Your task to perform on an android device: delete location history Image 0: 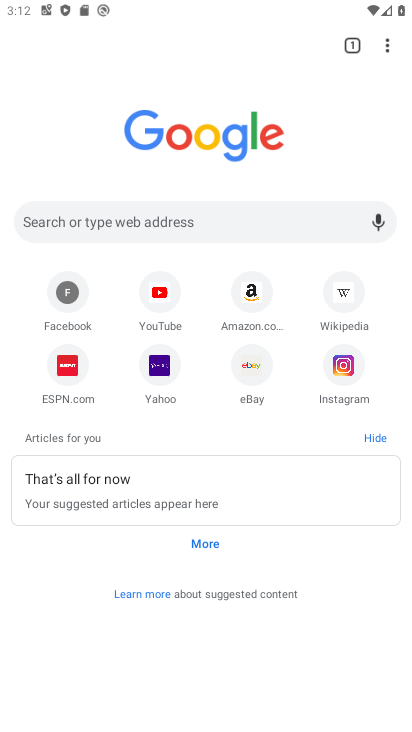
Step 0: press home button
Your task to perform on an android device: delete location history Image 1: 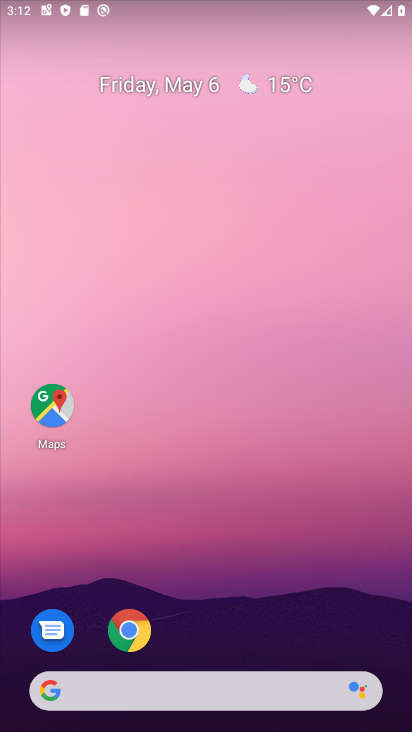
Step 1: click (38, 404)
Your task to perform on an android device: delete location history Image 2: 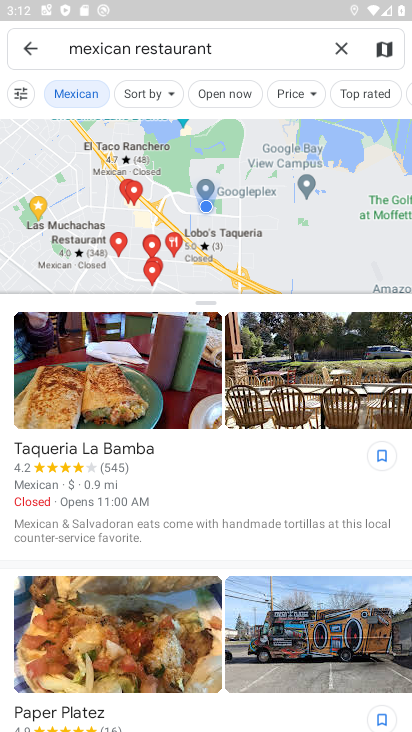
Step 2: click (40, 44)
Your task to perform on an android device: delete location history Image 3: 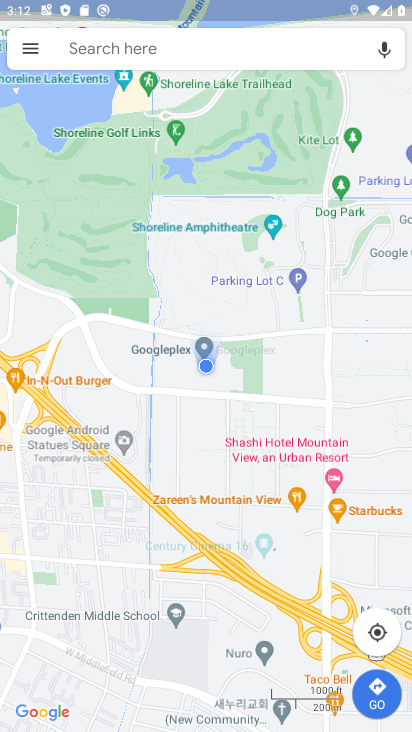
Step 3: click (40, 44)
Your task to perform on an android device: delete location history Image 4: 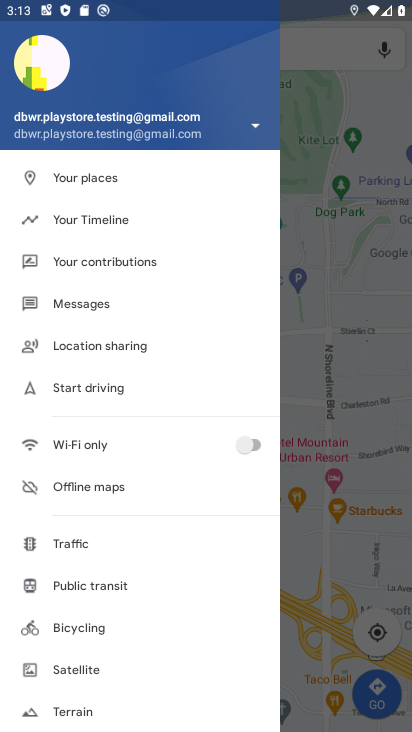
Step 4: click (143, 236)
Your task to perform on an android device: delete location history Image 5: 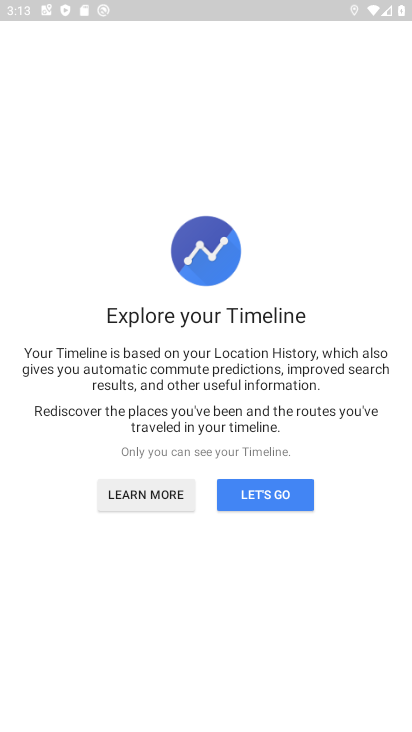
Step 5: click (276, 488)
Your task to perform on an android device: delete location history Image 6: 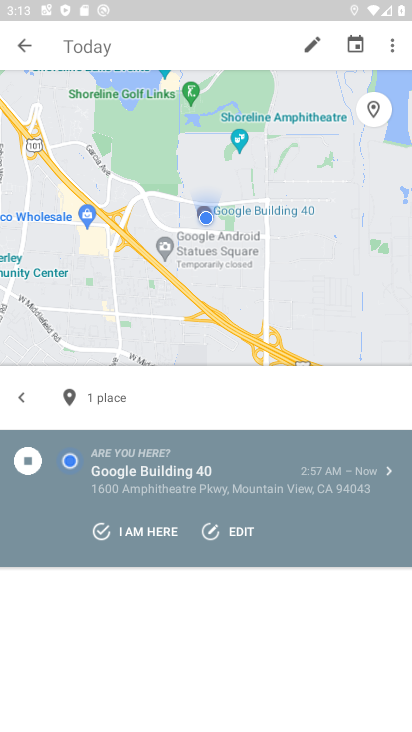
Step 6: click (382, 47)
Your task to perform on an android device: delete location history Image 7: 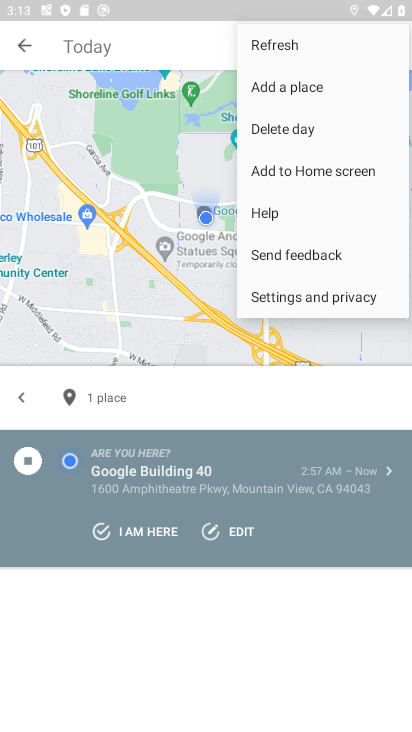
Step 7: click (288, 304)
Your task to perform on an android device: delete location history Image 8: 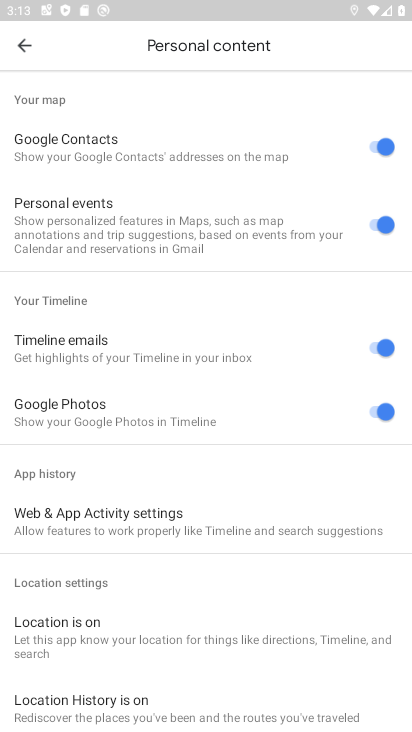
Step 8: drag from (130, 666) to (191, 135)
Your task to perform on an android device: delete location history Image 9: 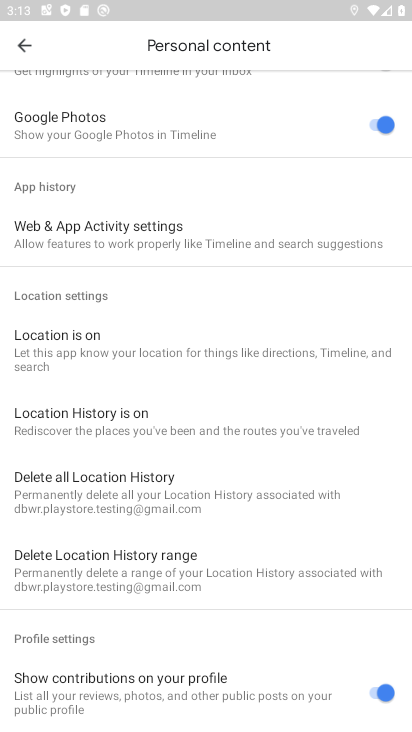
Step 9: click (84, 492)
Your task to perform on an android device: delete location history Image 10: 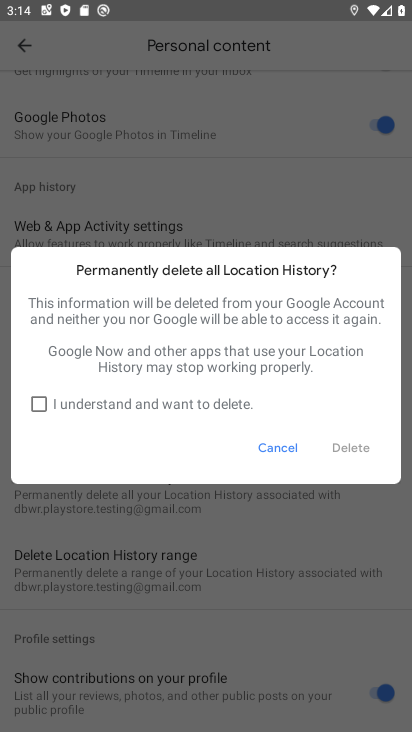
Step 10: click (37, 404)
Your task to perform on an android device: delete location history Image 11: 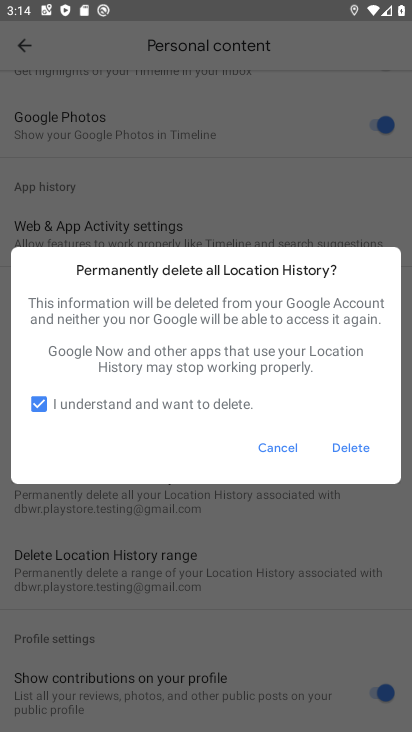
Step 11: click (342, 451)
Your task to perform on an android device: delete location history Image 12: 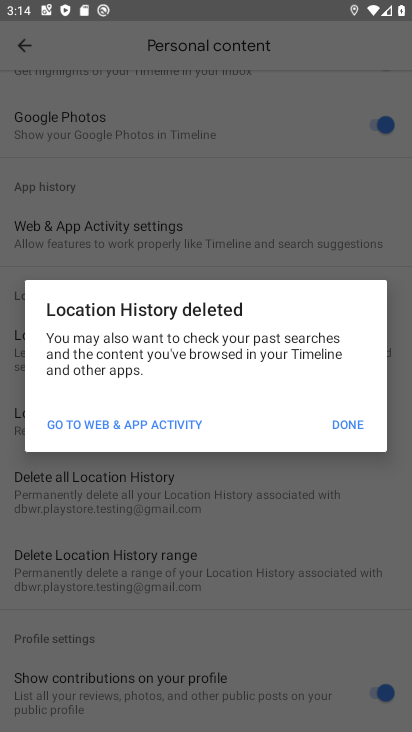
Step 12: click (348, 423)
Your task to perform on an android device: delete location history Image 13: 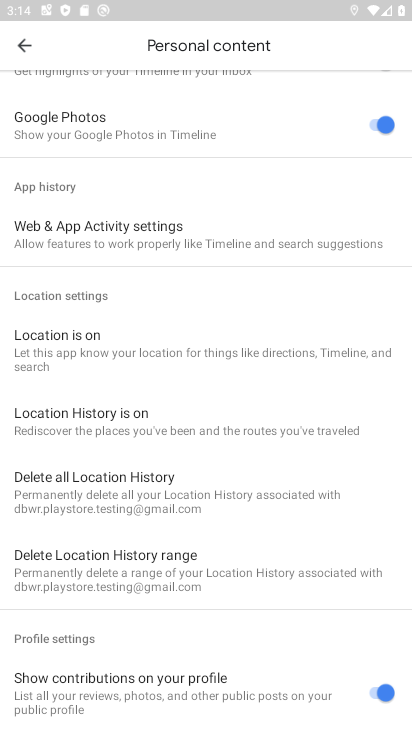
Step 13: task complete